Your task to perform on an android device: toggle airplane mode Image 0: 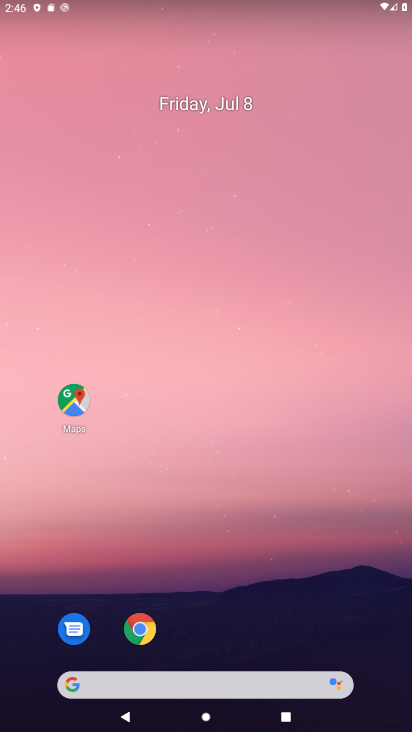
Step 0: drag from (43, 694) to (229, 199)
Your task to perform on an android device: toggle airplane mode Image 1: 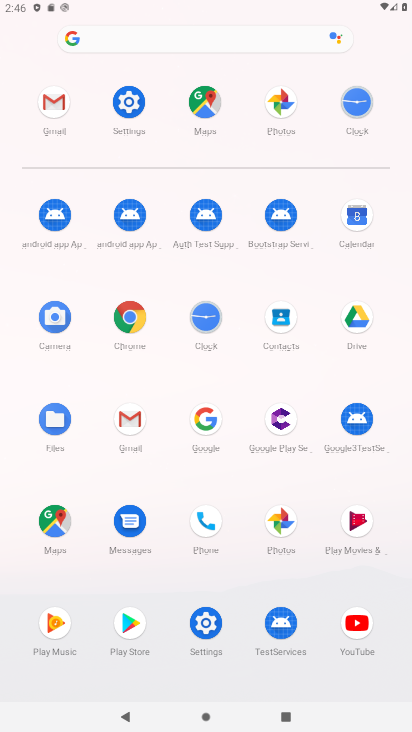
Step 1: click (207, 616)
Your task to perform on an android device: toggle airplane mode Image 2: 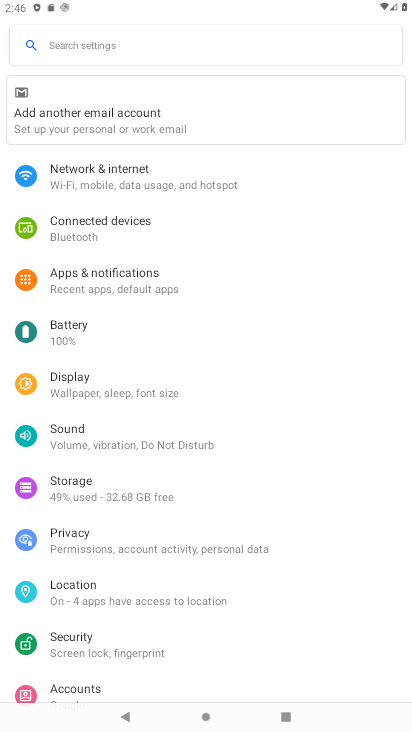
Step 2: click (75, 175)
Your task to perform on an android device: toggle airplane mode Image 3: 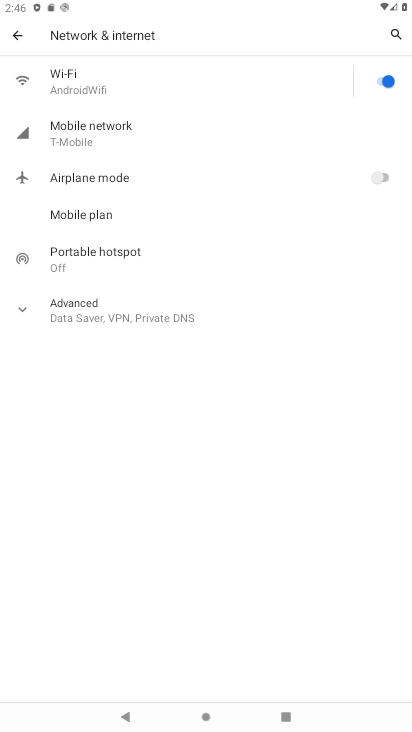
Step 3: click (123, 315)
Your task to perform on an android device: toggle airplane mode Image 4: 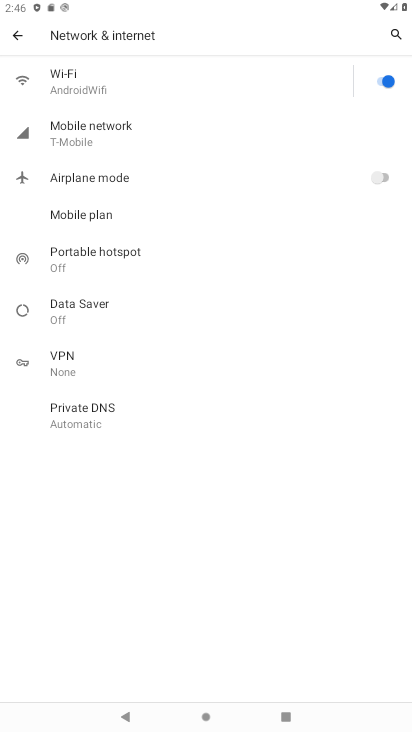
Step 4: click (380, 178)
Your task to perform on an android device: toggle airplane mode Image 5: 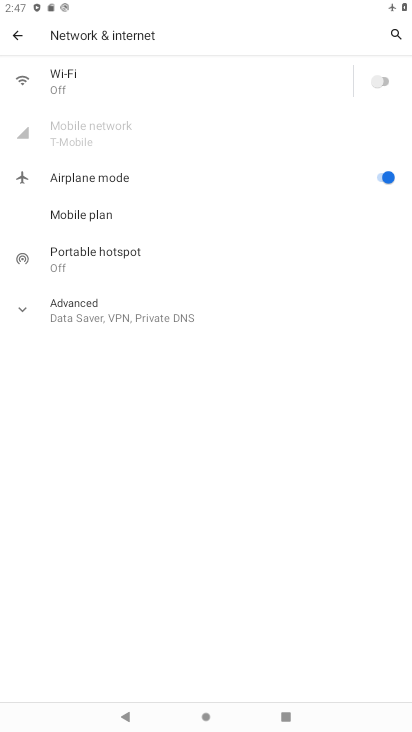
Step 5: task complete